Your task to perform on an android device: set an alarm Image 0: 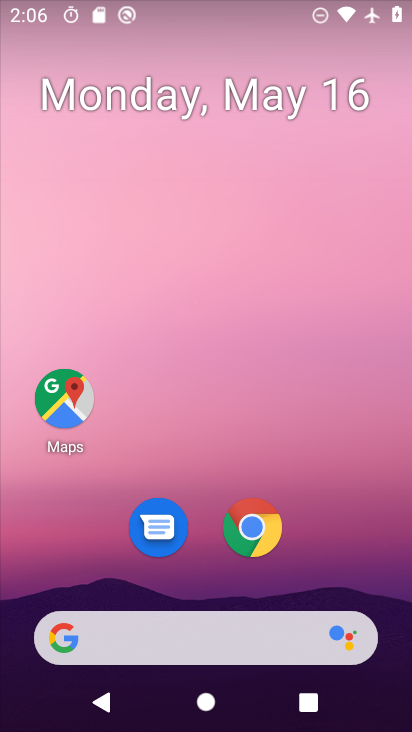
Step 0: press home button
Your task to perform on an android device: set an alarm Image 1: 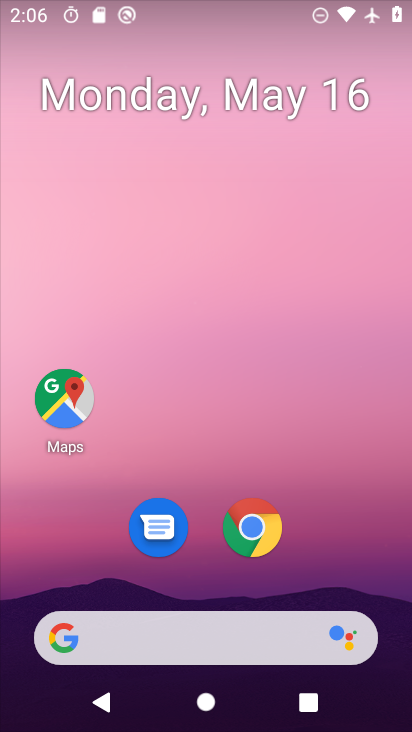
Step 1: drag from (184, 634) to (341, 115)
Your task to perform on an android device: set an alarm Image 2: 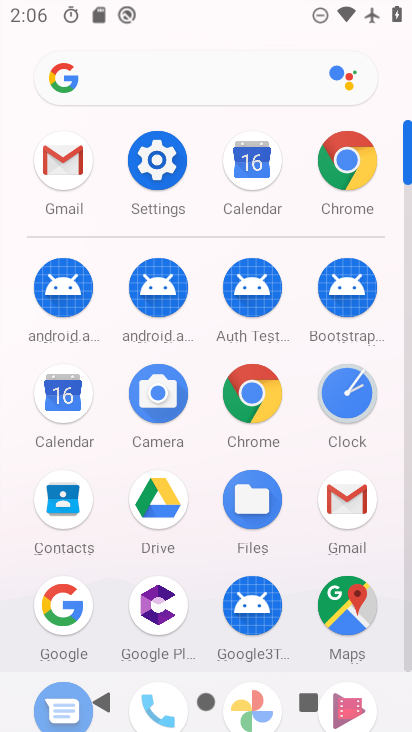
Step 2: click (348, 415)
Your task to perform on an android device: set an alarm Image 3: 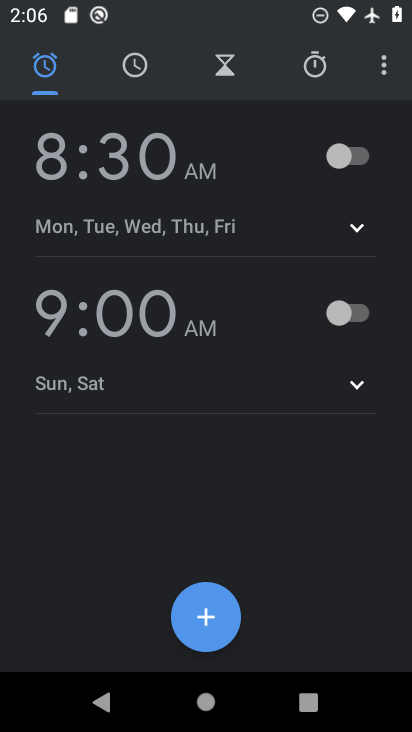
Step 3: click (50, 80)
Your task to perform on an android device: set an alarm Image 4: 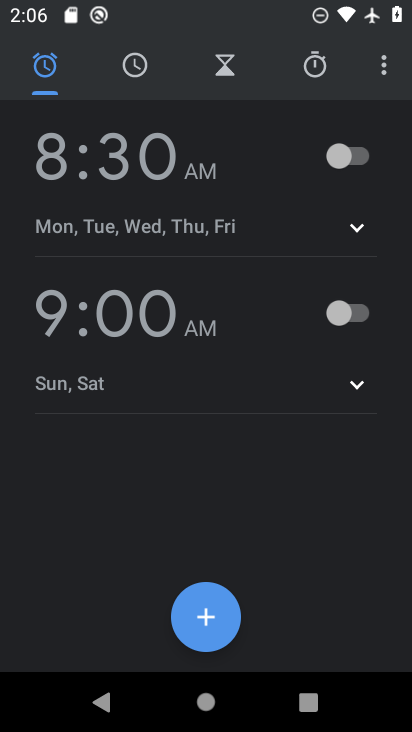
Step 4: click (357, 157)
Your task to perform on an android device: set an alarm Image 5: 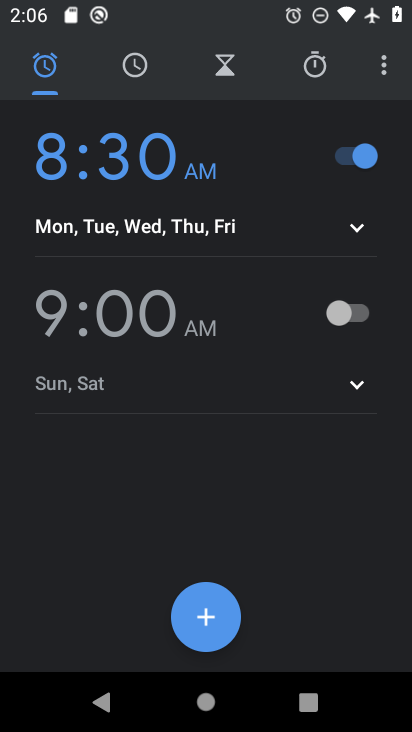
Step 5: task complete